Your task to perform on an android device: Go to Reddit.com Image 0: 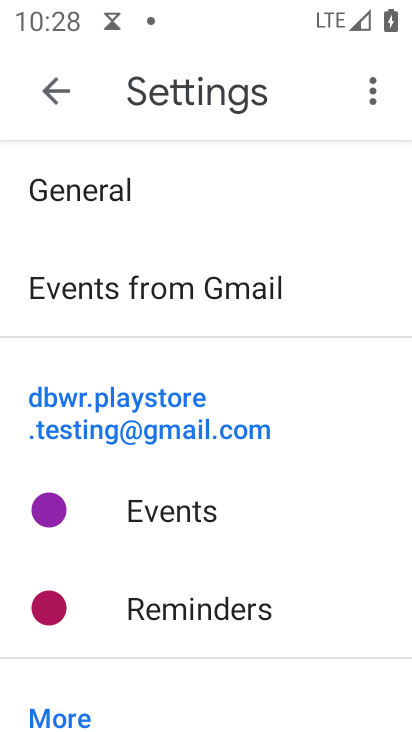
Step 0: press home button
Your task to perform on an android device: Go to Reddit.com Image 1: 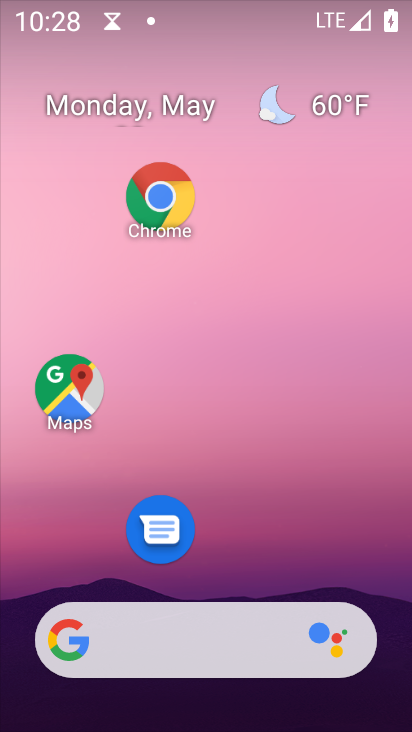
Step 1: click (156, 195)
Your task to perform on an android device: Go to Reddit.com Image 2: 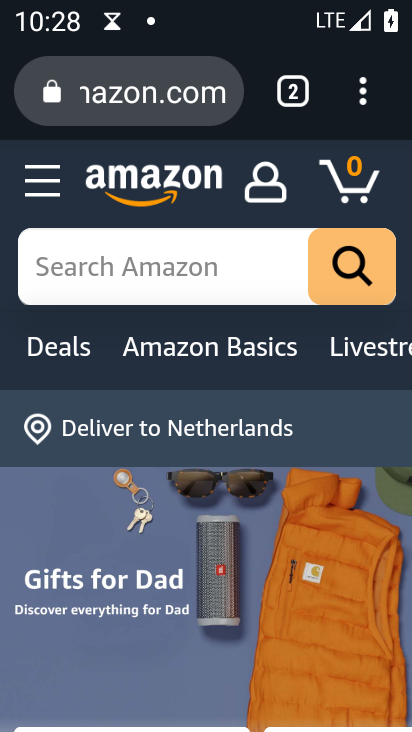
Step 2: click (106, 93)
Your task to perform on an android device: Go to Reddit.com Image 3: 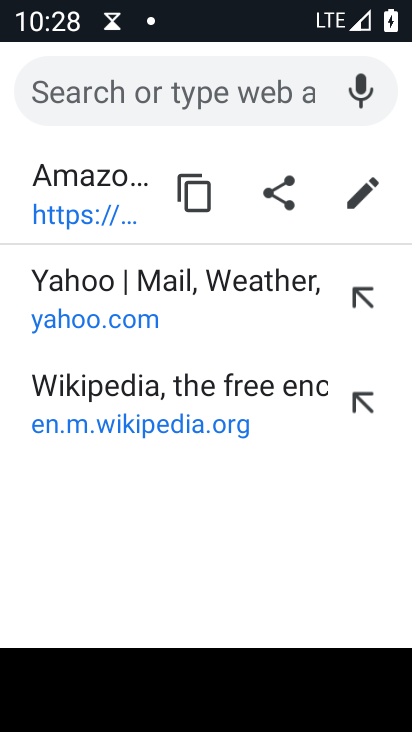
Step 3: type "www.reddit.com"
Your task to perform on an android device: Go to Reddit.com Image 4: 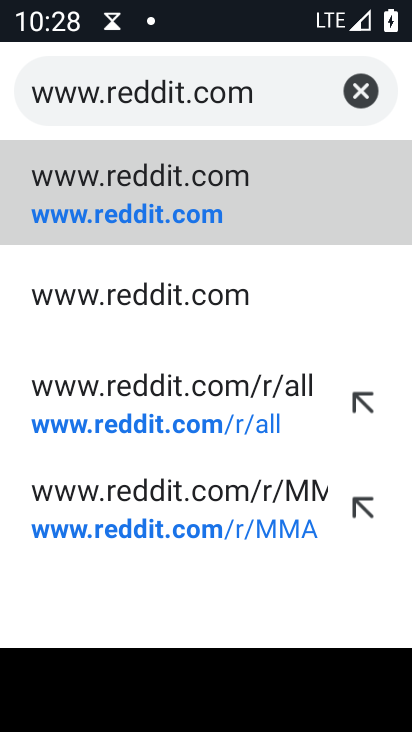
Step 4: click (193, 222)
Your task to perform on an android device: Go to Reddit.com Image 5: 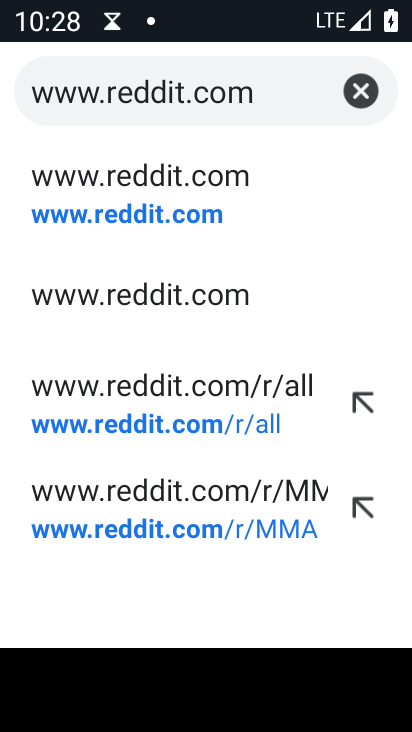
Step 5: click (160, 212)
Your task to perform on an android device: Go to Reddit.com Image 6: 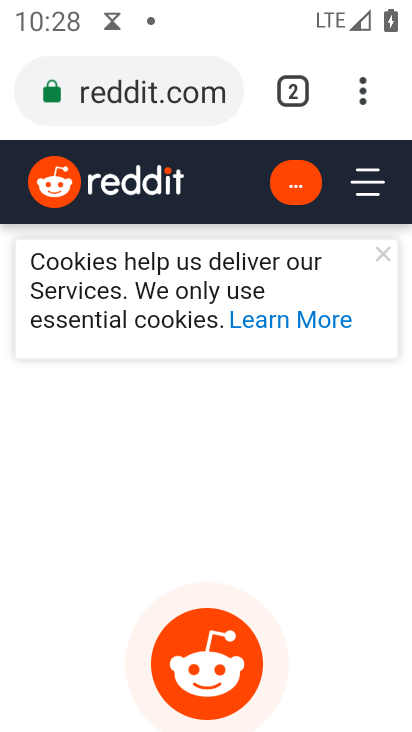
Step 6: task complete